Your task to perform on an android device: Go to wifi settings Image 0: 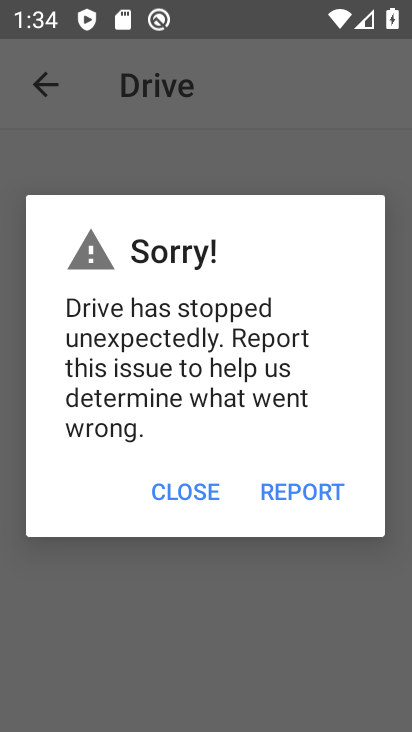
Step 0: press home button
Your task to perform on an android device: Go to wifi settings Image 1: 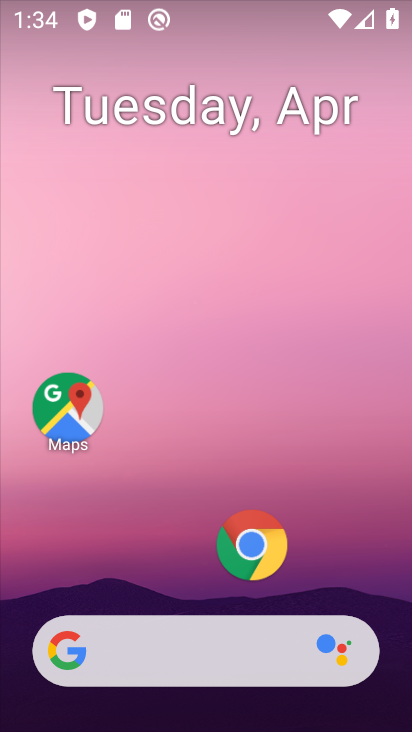
Step 1: drag from (171, 512) to (220, 203)
Your task to perform on an android device: Go to wifi settings Image 2: 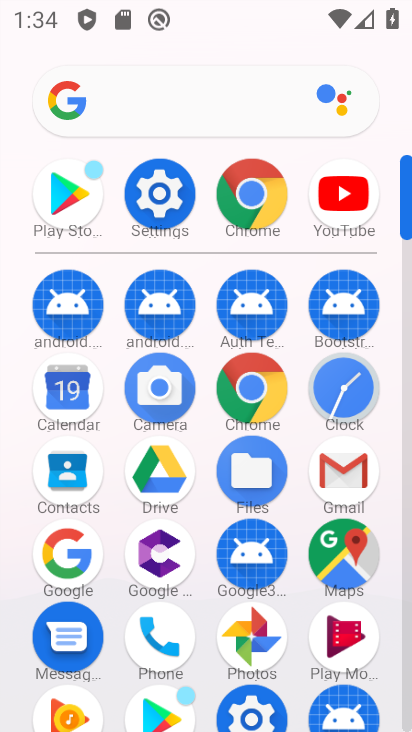
Step 2: click (159, 181)
Your task to perform on an android device: Go to wifi settings Image 3: 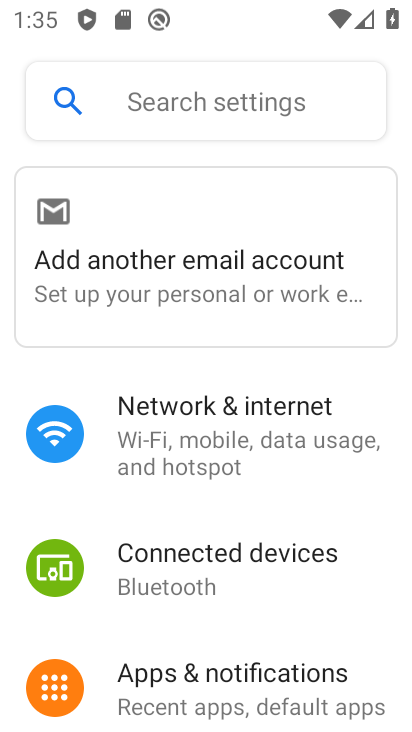
Step 3: click (192, 424)
Your task to perform on an android device: Go to wifi settings Image 4: 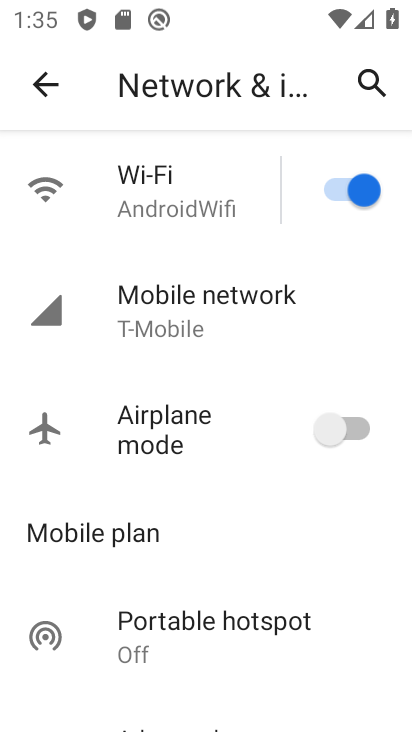
Step 4: click (180, 185)
Your task to perform on an android device: Go to wifi settings Image 5: 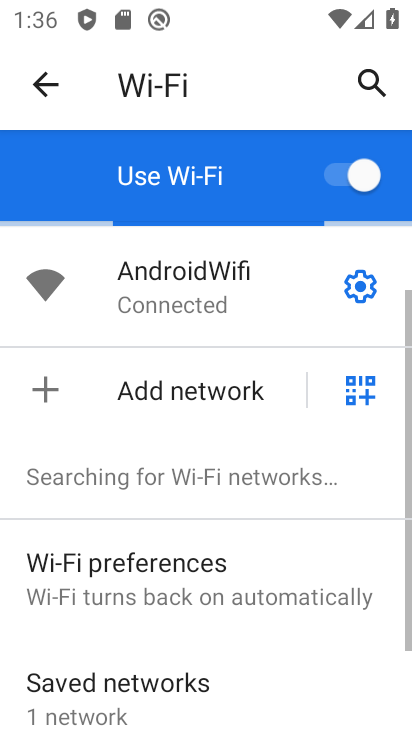
Step 5: task complete